Your task to perform on an android device: Add "amazon basics triple a" to the cart on newegg, then select checkout. Image 0: 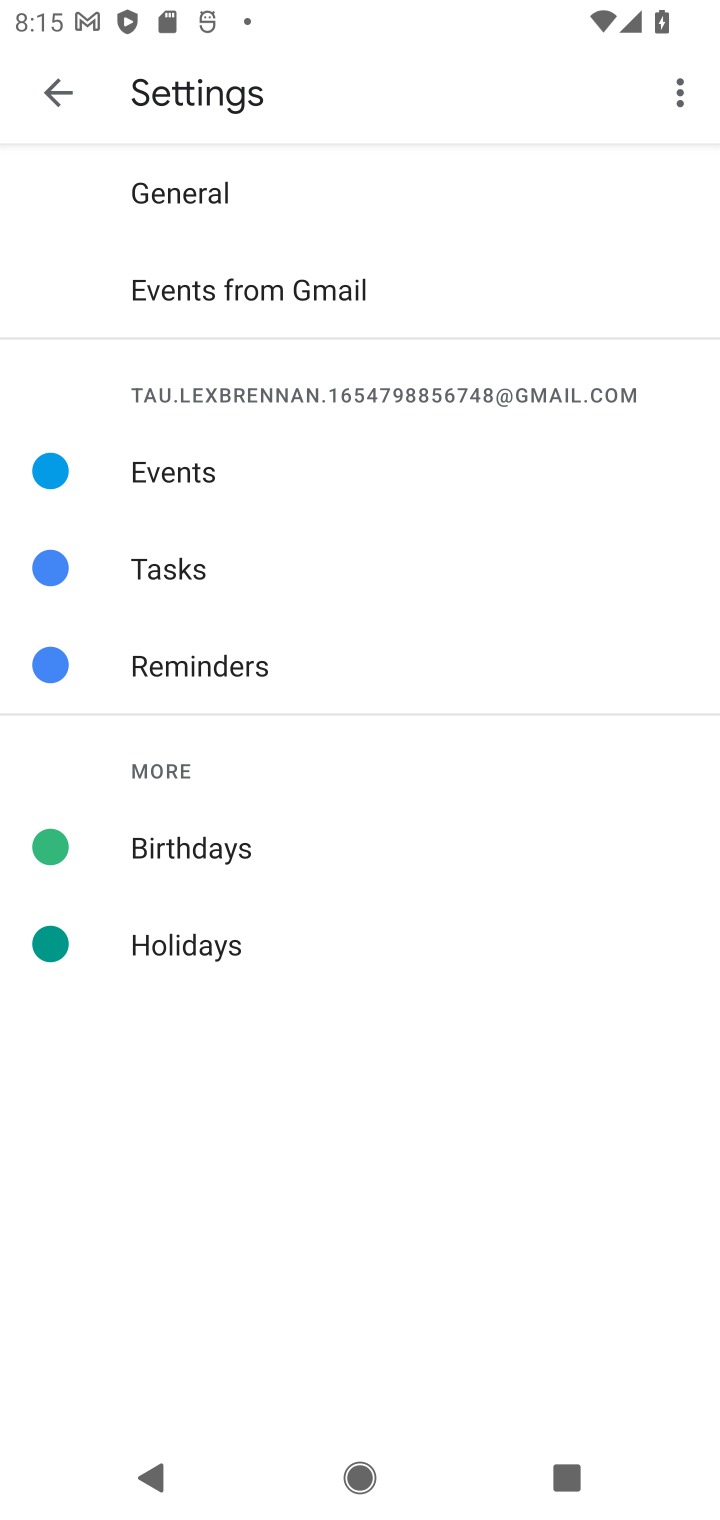
Step 0: press home button
Your task to perform on an android device: Add "amazon basics triple a" to the cart on newegg, then select checkout. Image 1: 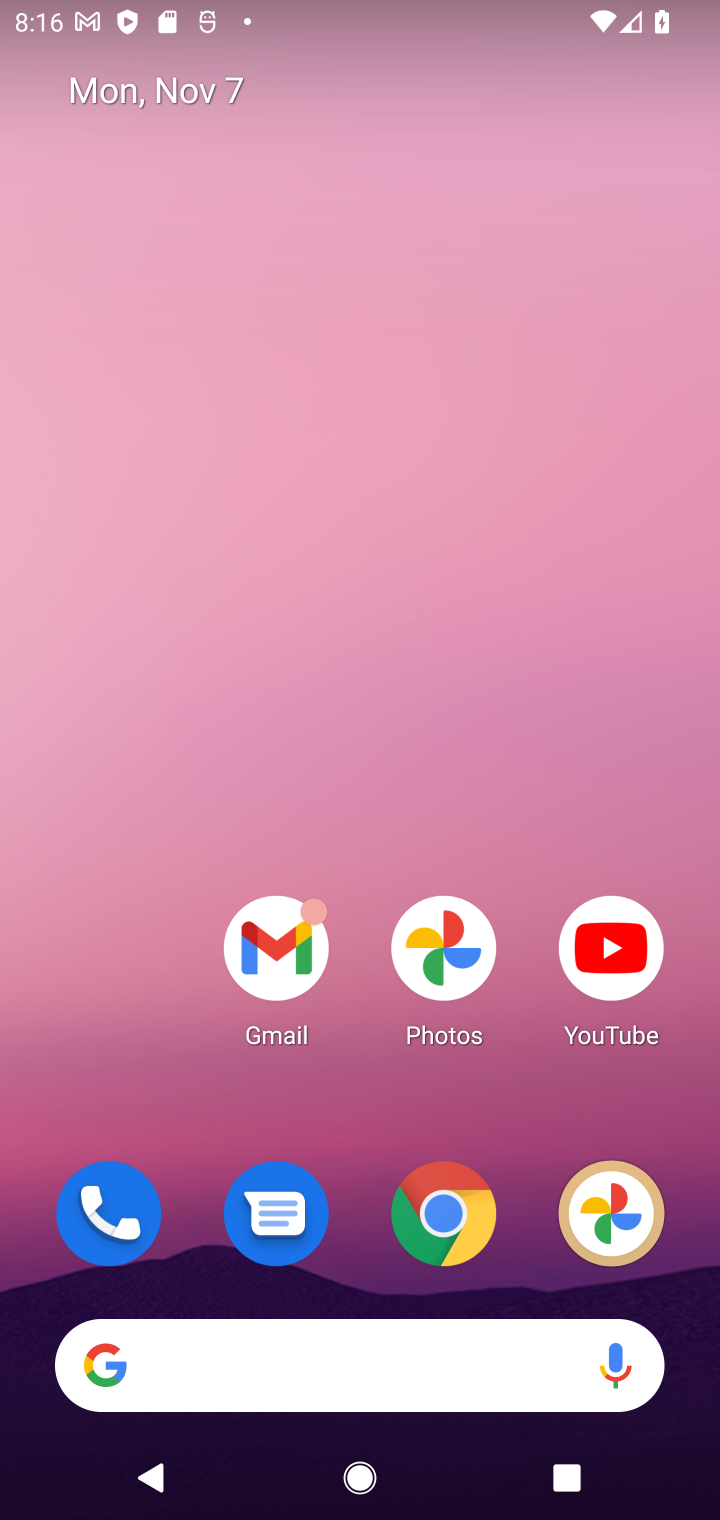
Step 1: click (438, 1210)
Your task to perform on an android device: Add "amazon basics triple a" to the cart on newegg, then select checkout. Image 2: 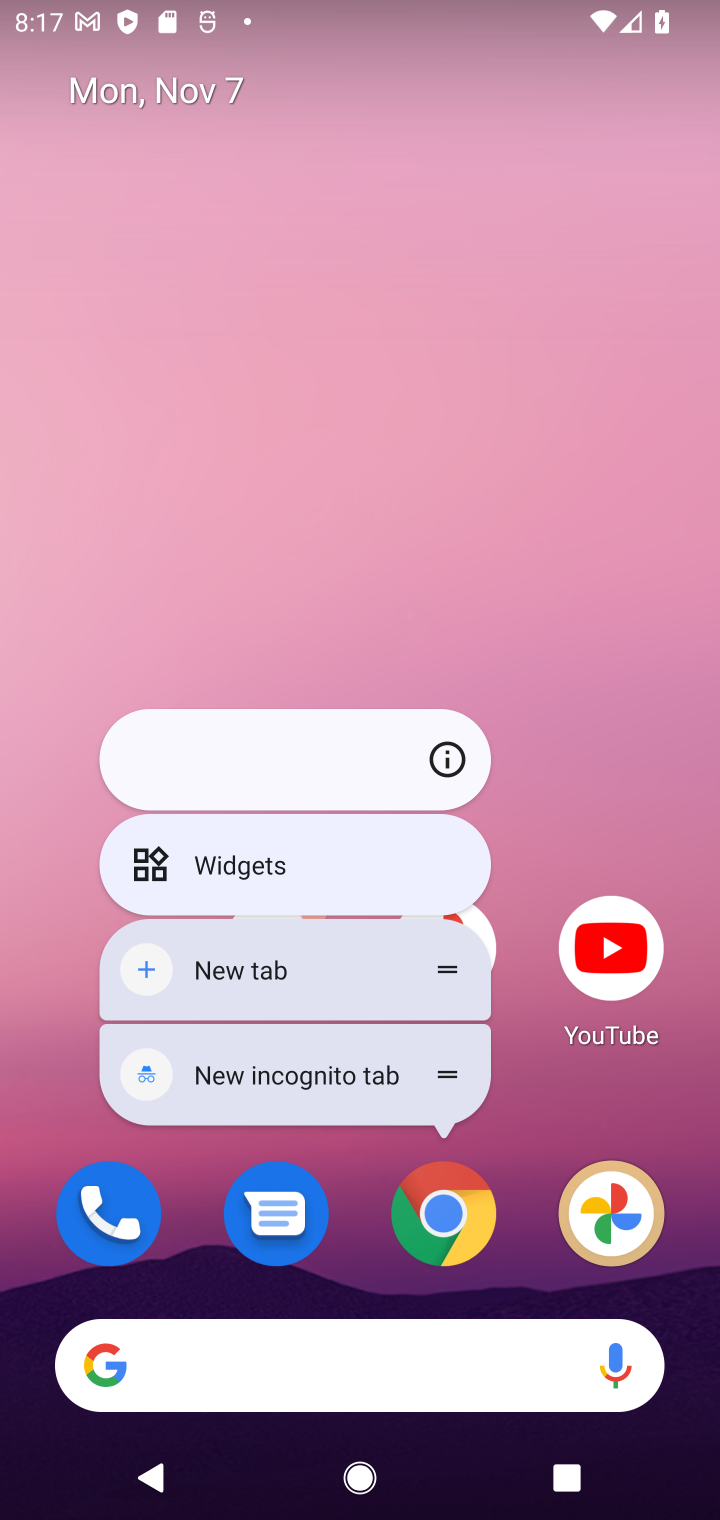
Step 2: click (439, 1219)
Your task to perform on an android device: Add "amazon basics triple a" to the cart on newegg, then select checkout. Image 3: 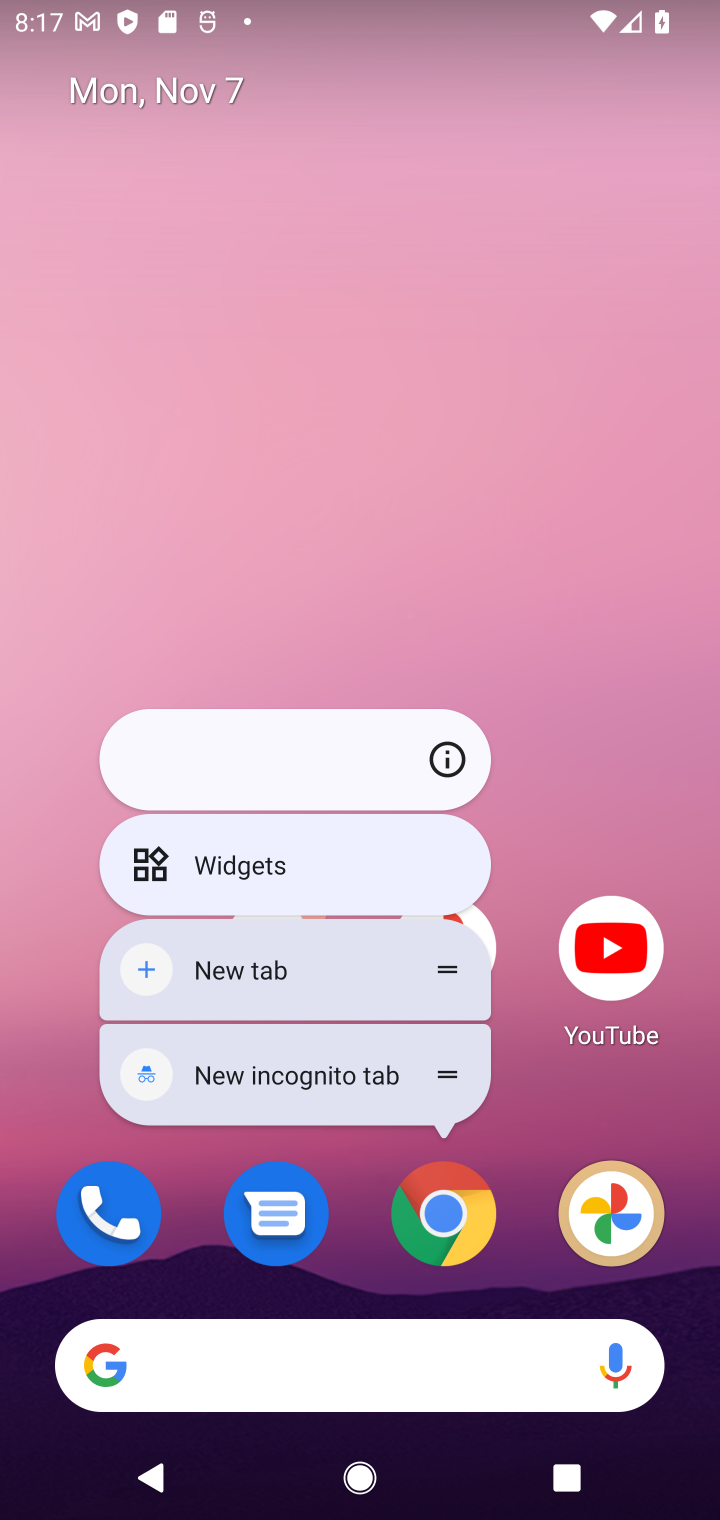
Step 3: click (439, 1219)
Your task to perform on an android device: Add "amazon basics triple a" to the cart on newegg, then select checkout. Image 4: 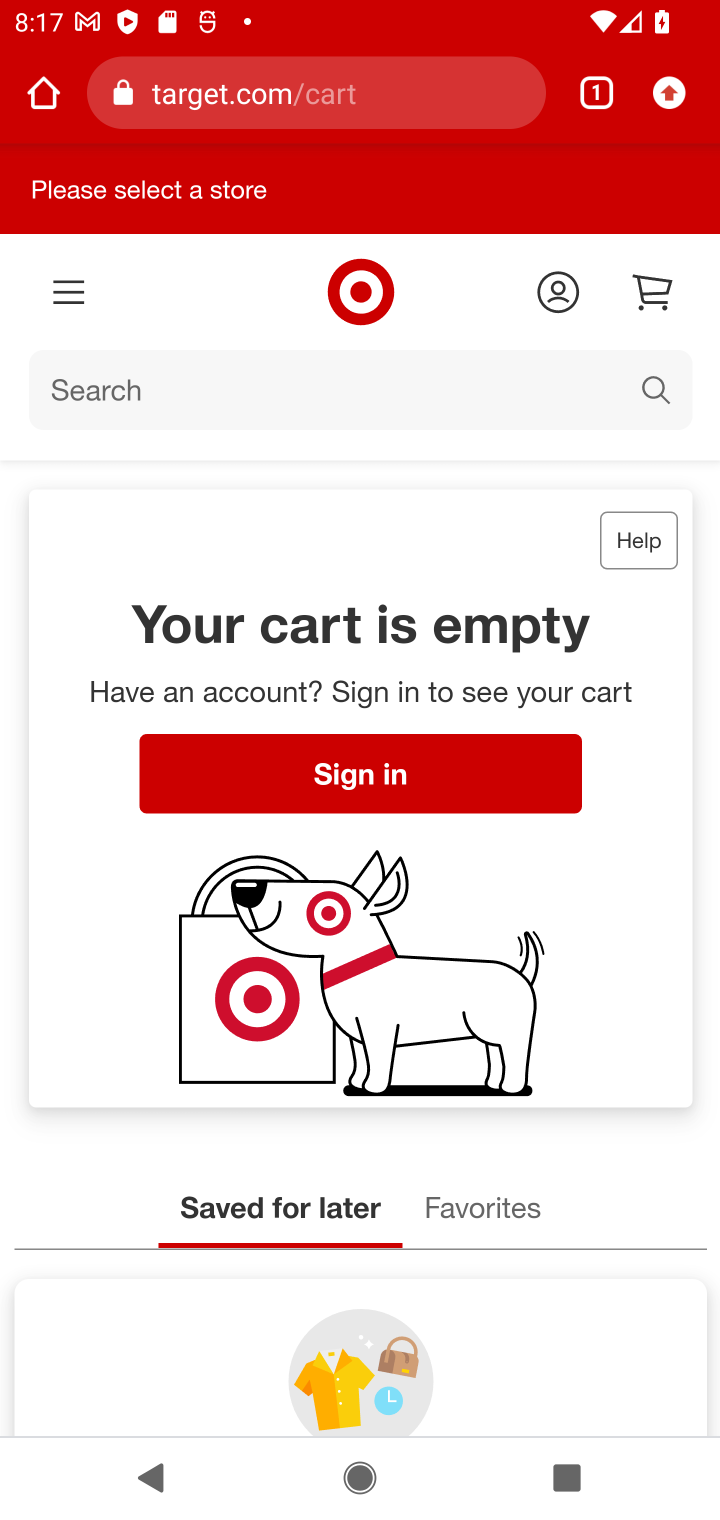
Step 4: click (277, 96)
Your task to perform on an android device: Add "amazon basics triple a" to the cart on newegg, then select checkout. Image 5: 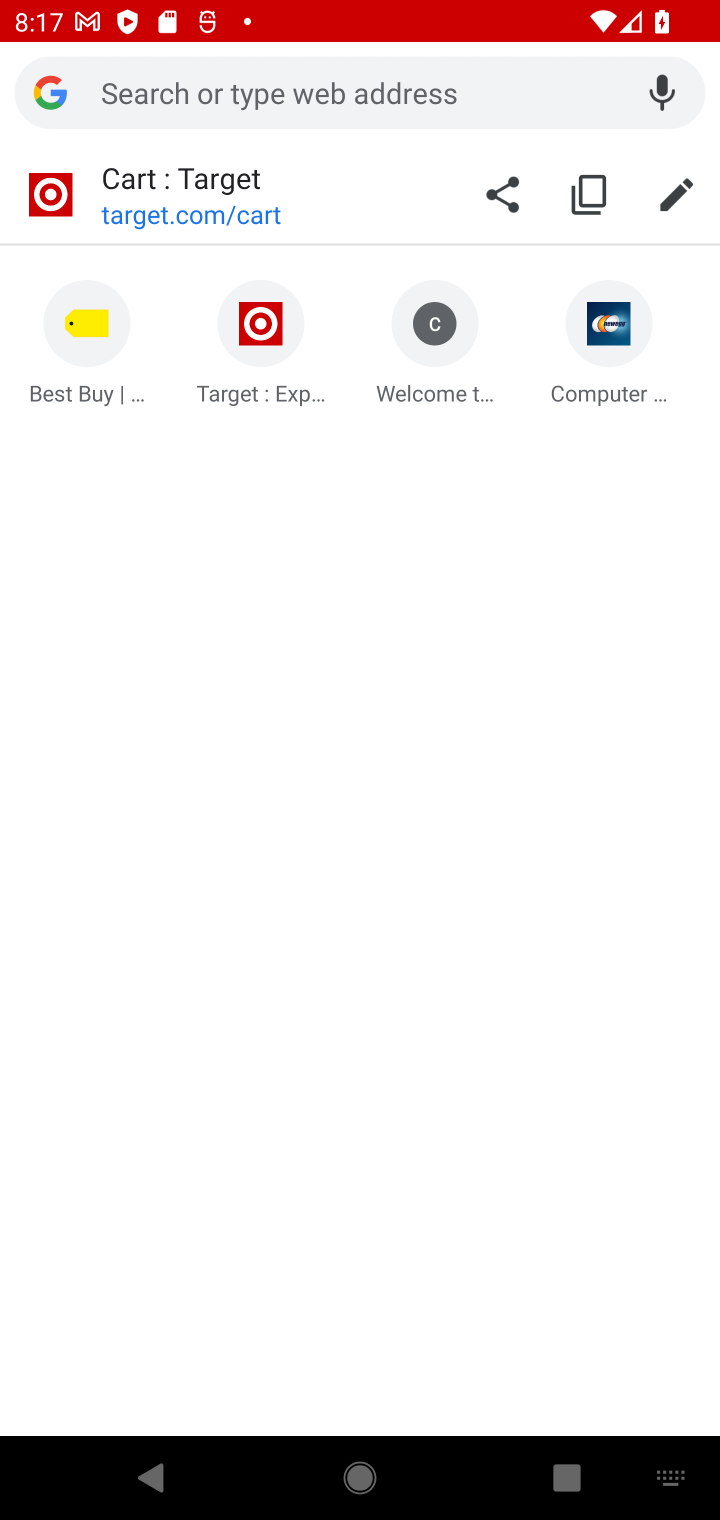
Step 5: type "newegg.com"
Your task to perform on an android device: Add "amazon basics triple a" to the cart on newegg, then select checkout. Image 6: 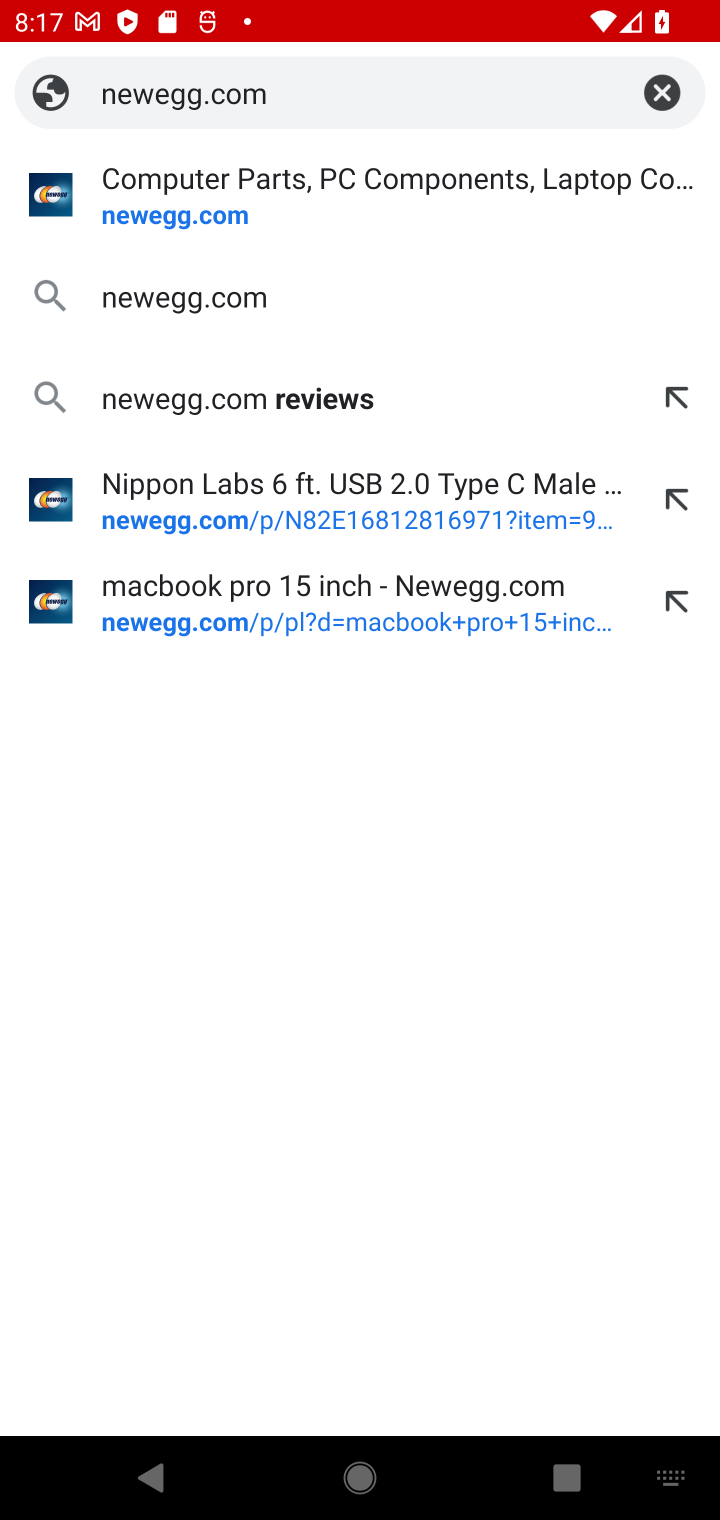
Step 6: click (175, 223)
Your task to perform on an android device: Add "amazon basics triple a" to the cart on newegg, then select checkout. Image 7: 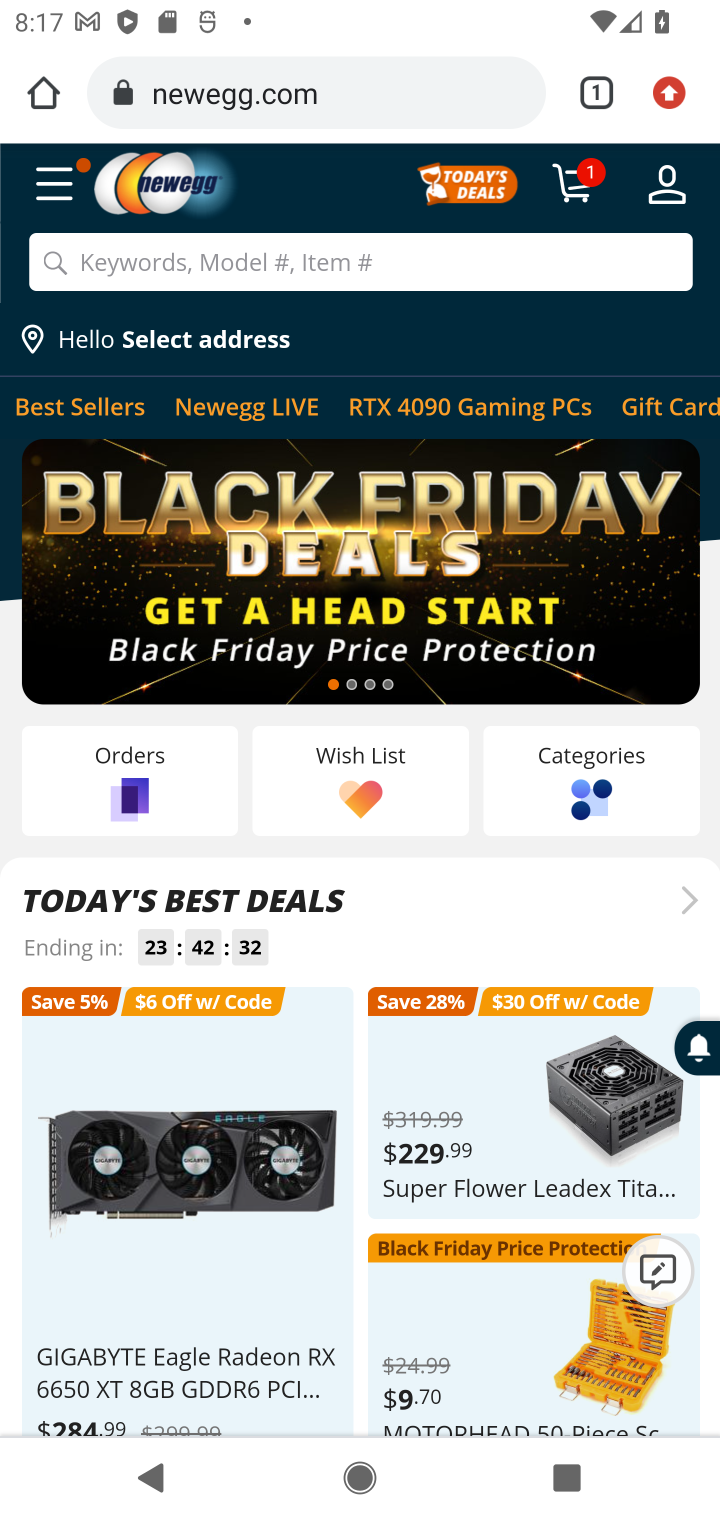
Step 7: click (219, 261)
Your task to perform on an android device: Add "amazon basics triple a" to the cart on newegg, then select checkout. Image 8: 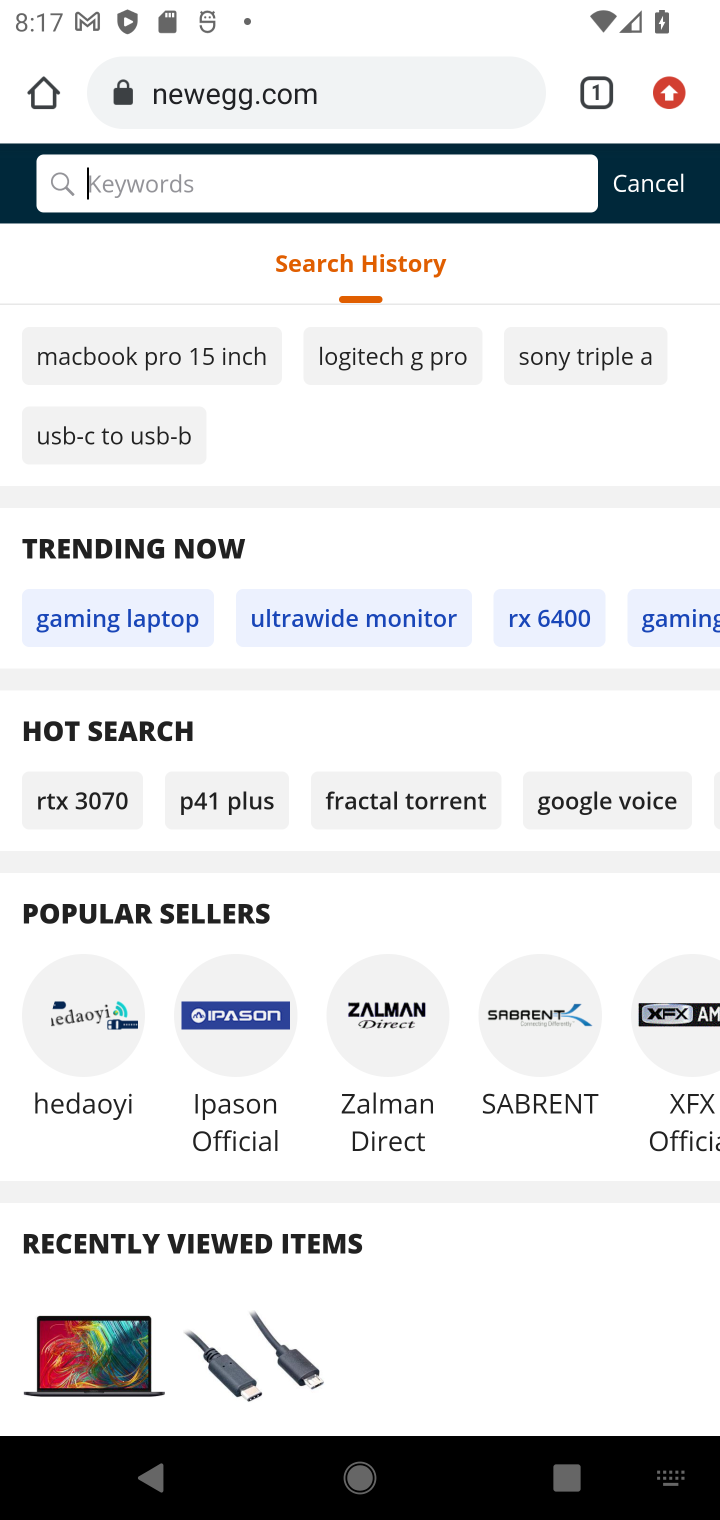
Step 8: type "amazon basics triple a"
Your task to perform on an android device: Add "amazon basics triple a" to the cart on newegg, then select checkout. Image 9: 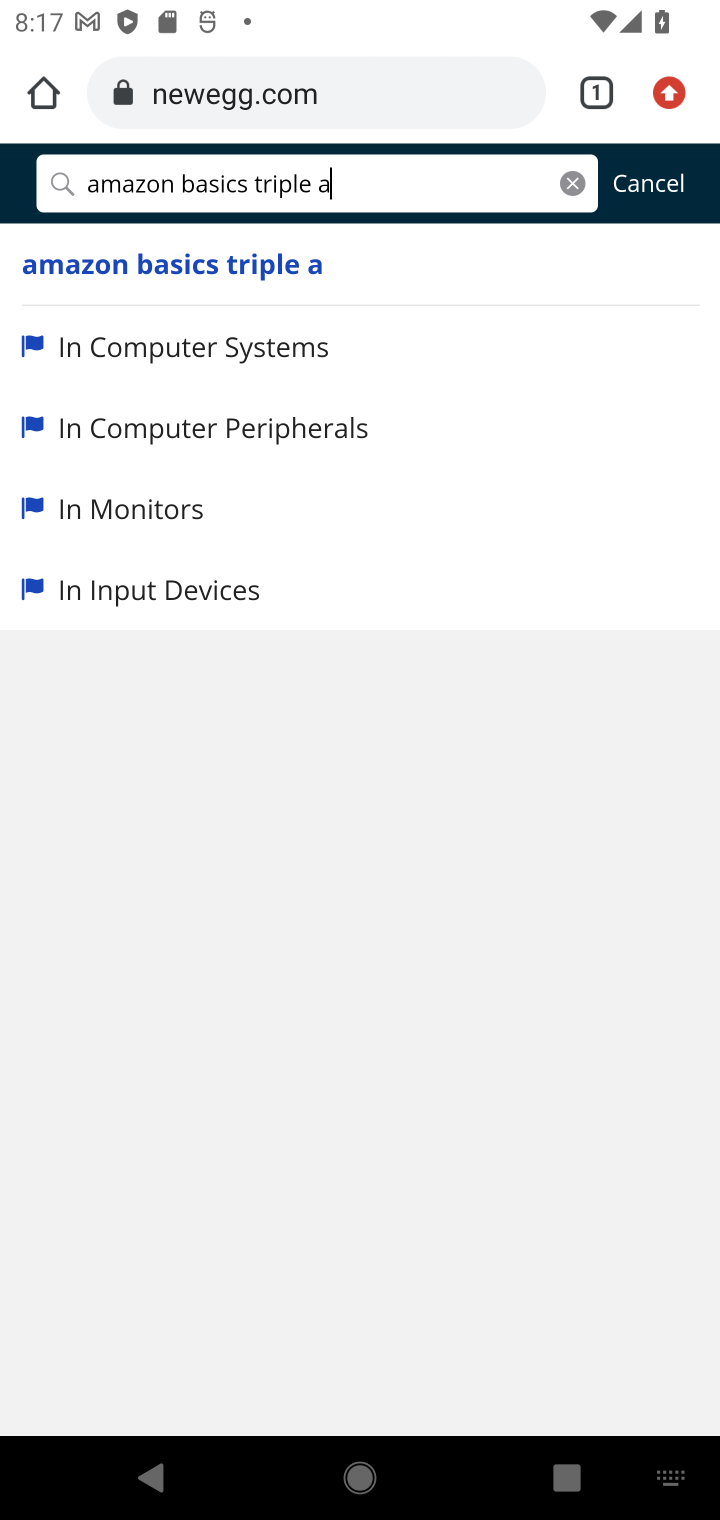
Step 9: click (250, 275)
Your task to perform on an android device: Add "amazon basics triple a" to the cart on newegg, then select checkout. Image 10: 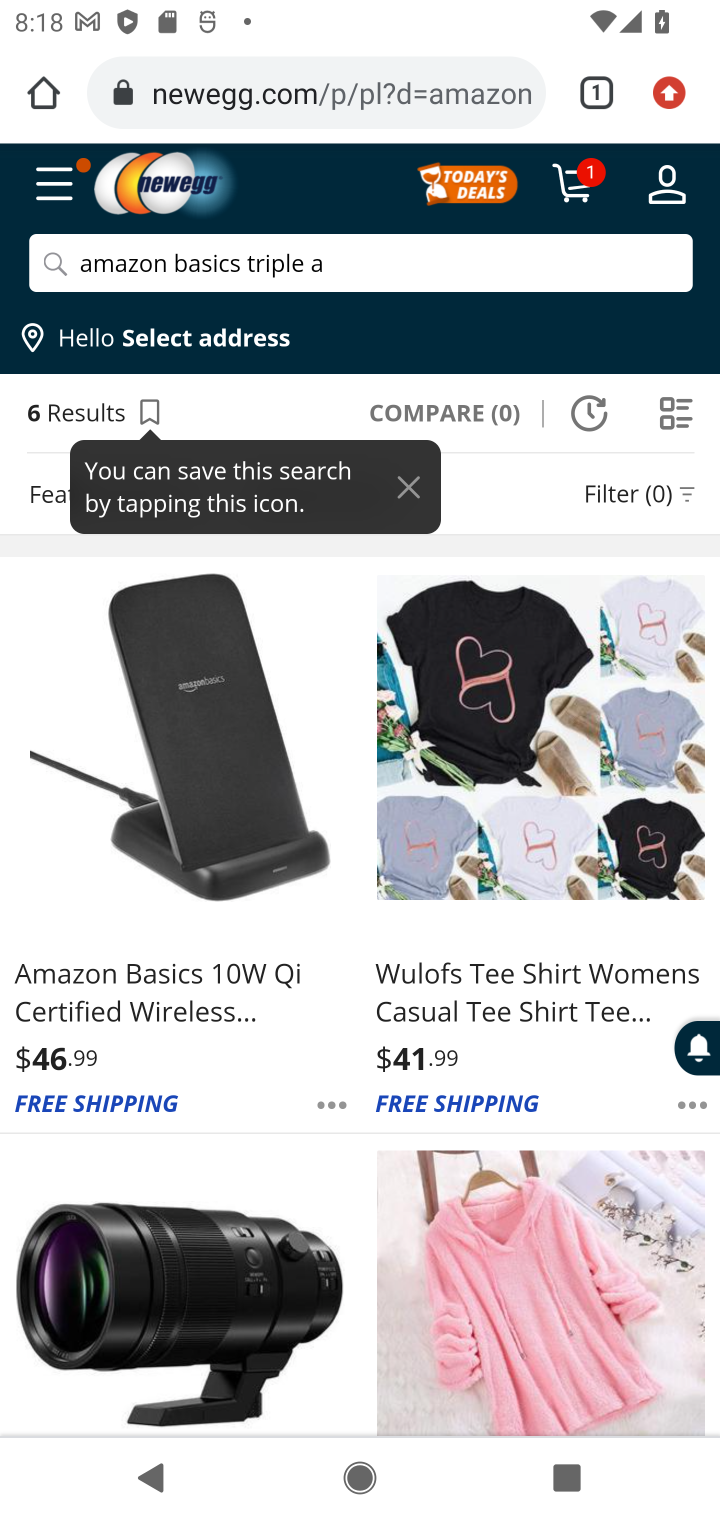
Step 10: task complete